Your task to perform on an android device: delete a single message in the gmail app Image 0: 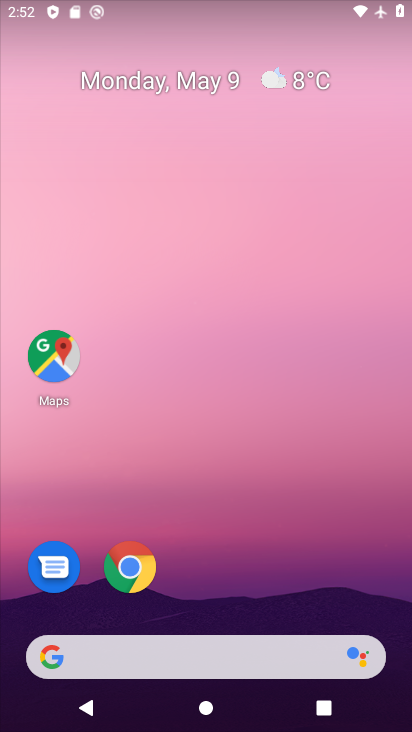
Step 0: drag from (256, 545) to (179, 24)
Your task to perform on an android device: delete a single message in the gmail app Image 1: 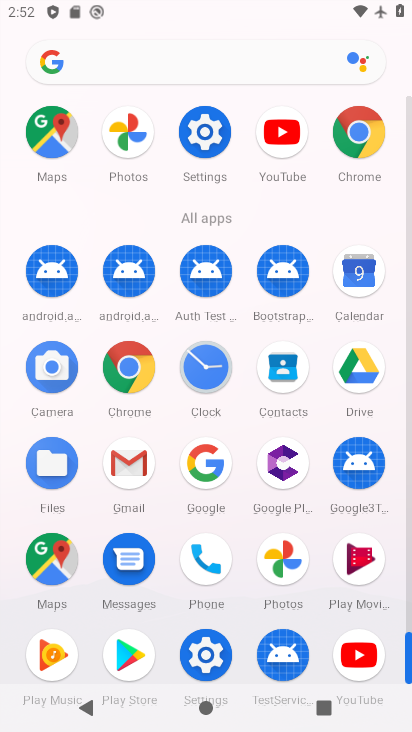
Step 1: drag from (5, 593) to (12, 287)
Your task to perform on an android device: delete a single message in the gmail app Image 2: 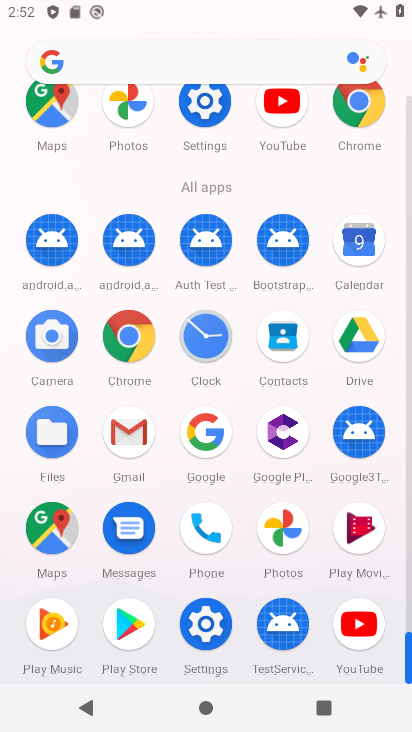
Step 2: click (126, 429)
Your task to perform on an android device: delete a single message in the gmail app Image 3: 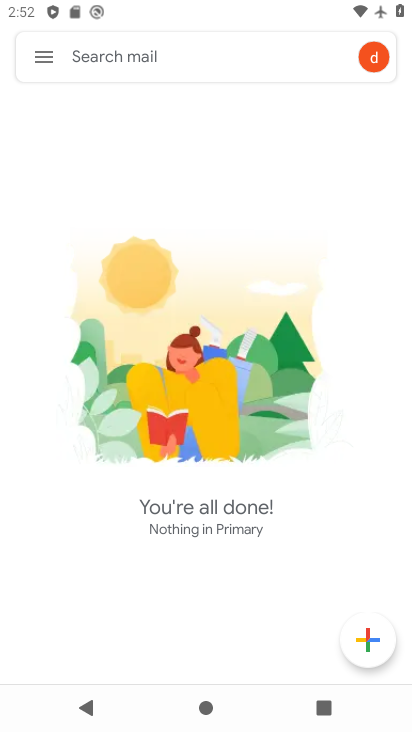
Step 3: click (37, 55)
Your task to perform on an android device: delete a single message in the gmail app Image 4: 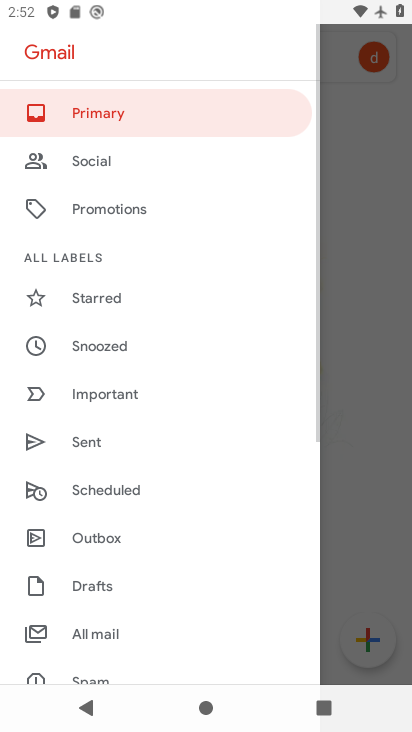
Step 4: drag from (173, 160) to (205, 606)
Your task to perform on an android device: delete a single message in the gmail app Image 5: 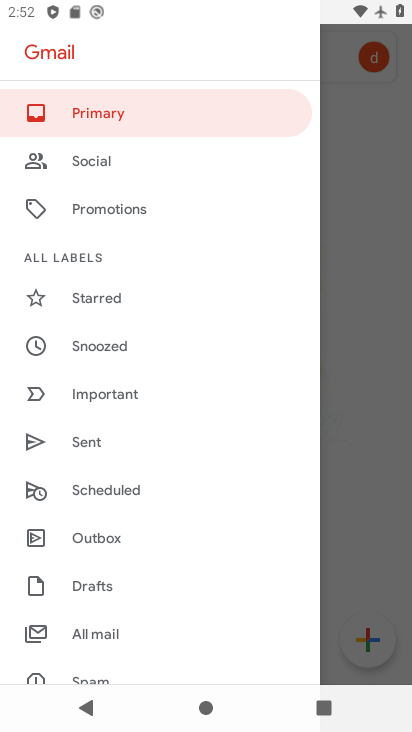
Step 5: click (117, 625)
Your task to perform on an android device: delete a single message in the gmail app Image 6: 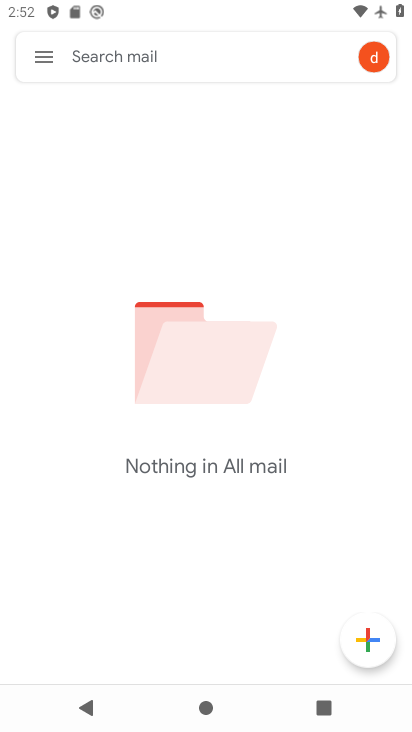
Step 6: click (35, 39)
Your task to perform on an android device: delete a single message in the gmail app Image 7: 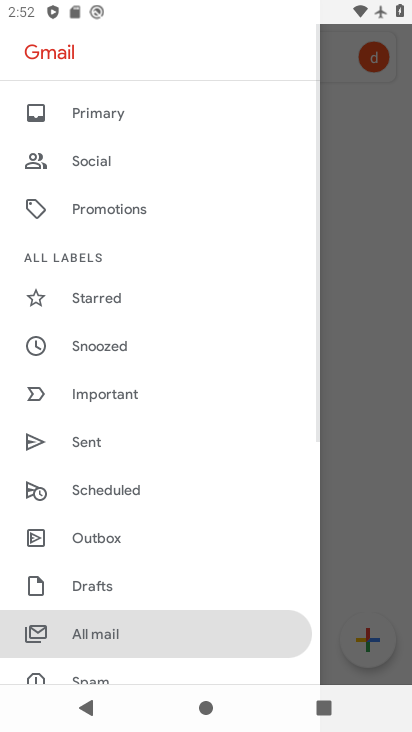
Step 7: click (109, 121)
Your task to perform on an android device: delete a single message in the gmail app Image 8: 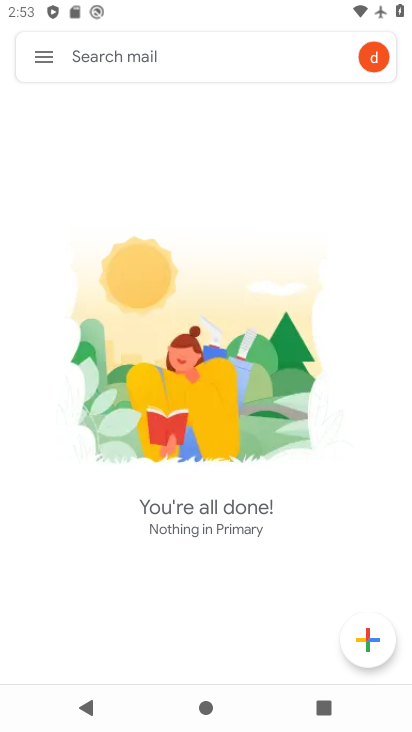
Step 8: click (58, 55)
Your task to perform on an android device: delete a single message in the gmail app Image 9: 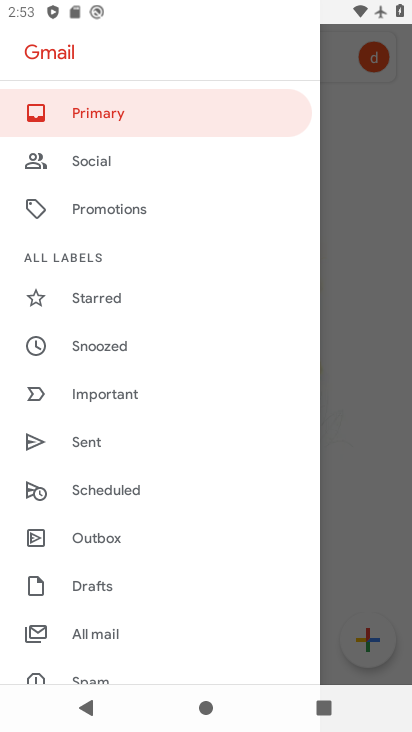
Step 9: task complete